Your task to perform on an android device: turn notification dots on Image 0: 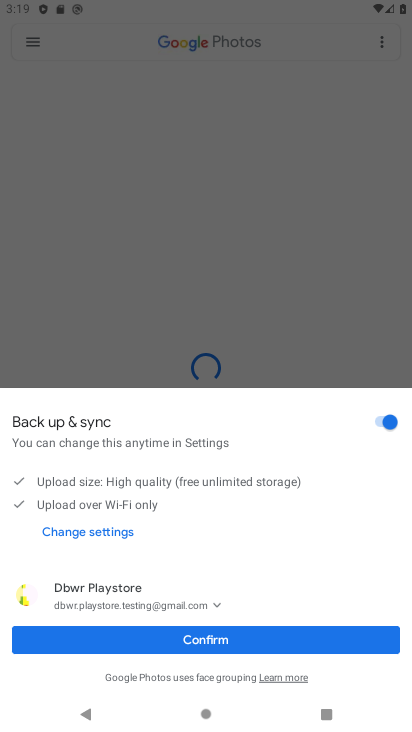
Step 0: press home button
Your task to perform on an android device: turn notification dots on Image 1: 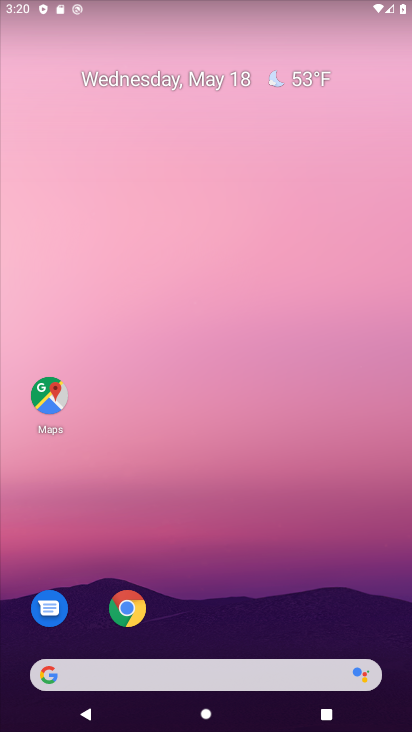
Step 1: drag from (283, 694) to (325, 104)
Your task to perform on an android device: turn notification dots on Image 2: 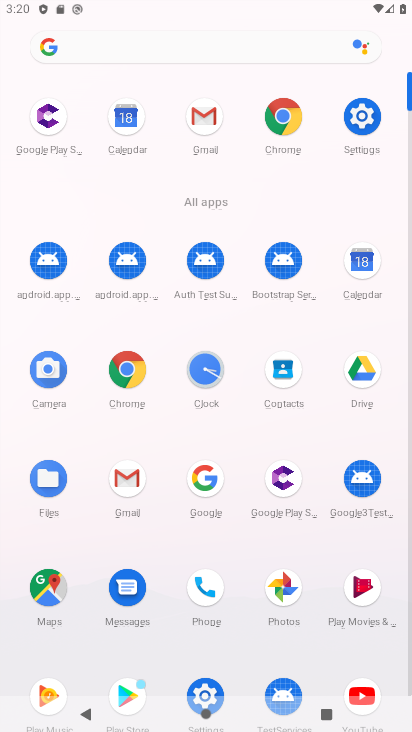
Step 2: click (370, 125)
Your task to perform on an android device: turn notification dots on Image 3: 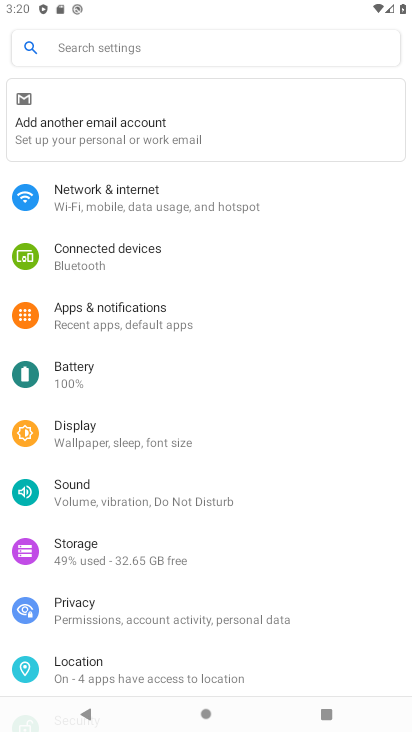
Step 3: click (83, 326)
Your task to perform on an android device: turn notification dots on Image 4: 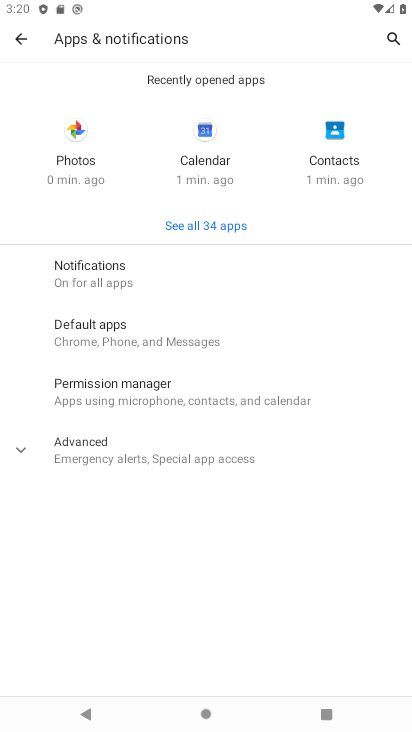
Step 4: click (100, 279)
Your task to perform on an android device: turn notification dots on Image 5: 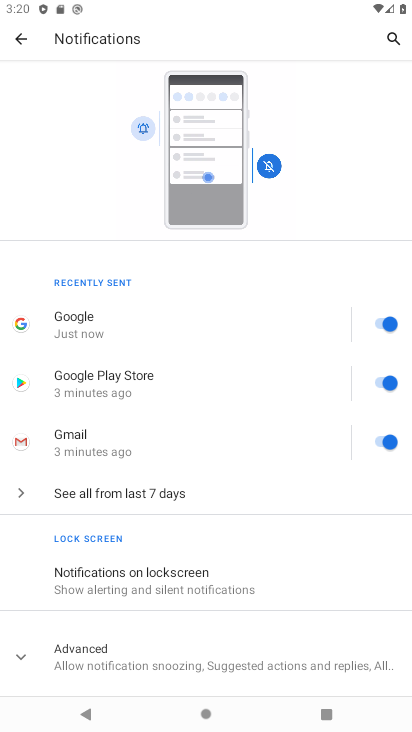
Step 5: drag from (262, 650) to (316, 281)
Your task to perform on an android device: turn notification dots on Image 6: 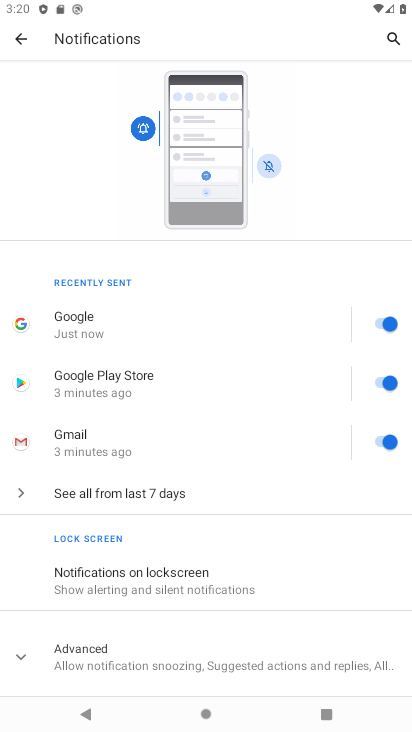
Step 6: click (286, 651)
Your task to perform on an android device: turn notification dots on Image 7: 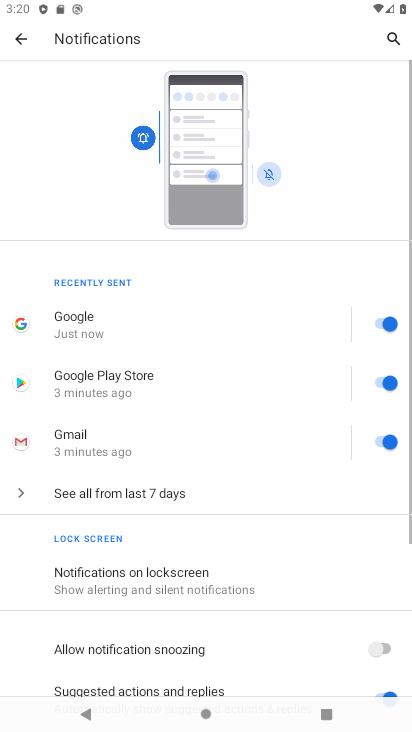
Step 7: task complete